Your task to perform on an android device: change the clock style Image 0: 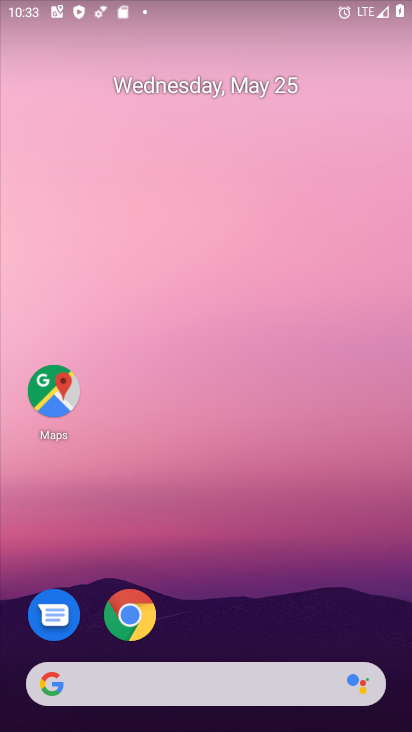
Step 0: drag from (277, 564) to (295, 24)
Your task to perform on an android device: change the clock style Image 1: 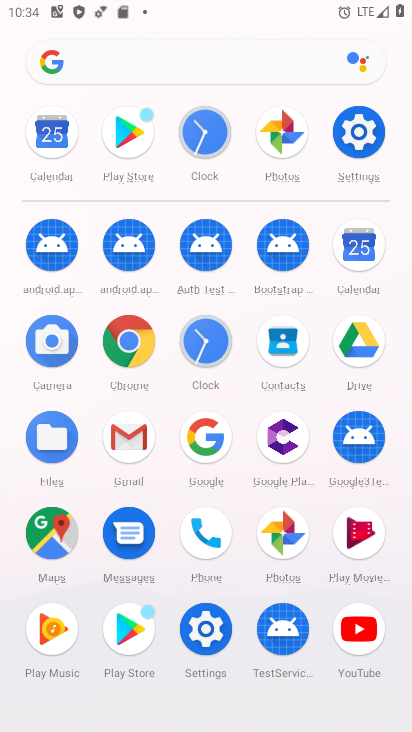
Step 1: click (210, 340)
Your task to perform on an android device: change the clock style Image 2: 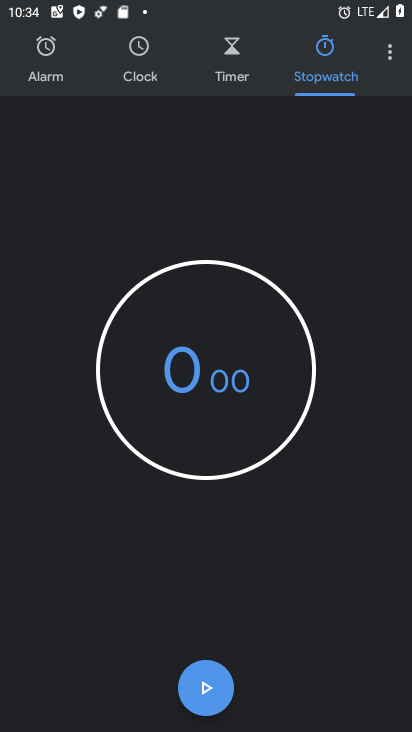
Step 2: click (136, 58)
Your task to perform on an android device: change the clock style Image 3: 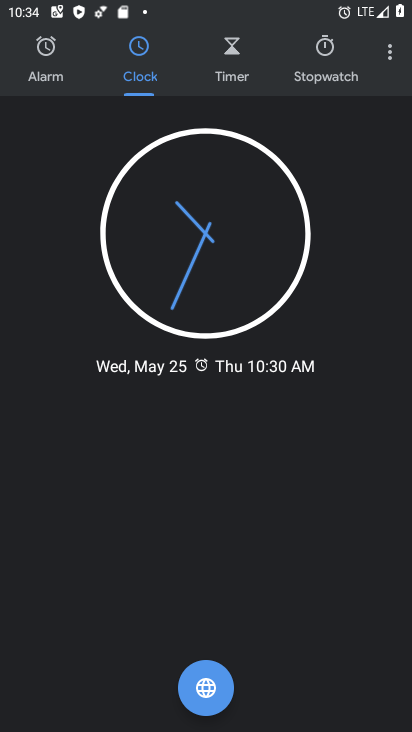
Step 3: click (391, 52)
Your task to perform on an android device: change the clock style Image 4: 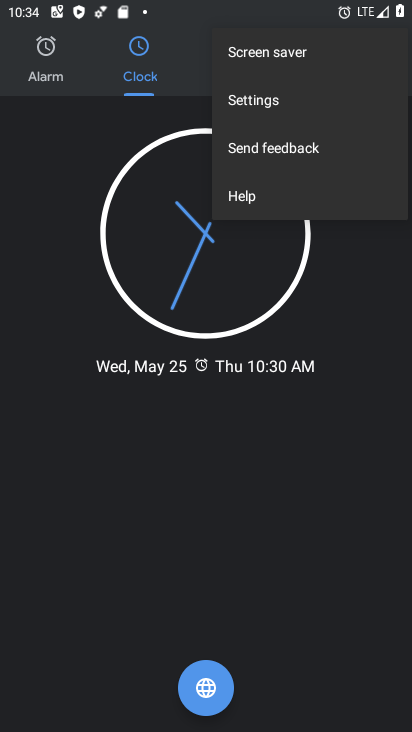
Step 4: click (324, 96)
Your task to perform on an android device: change the clock style Image 5: 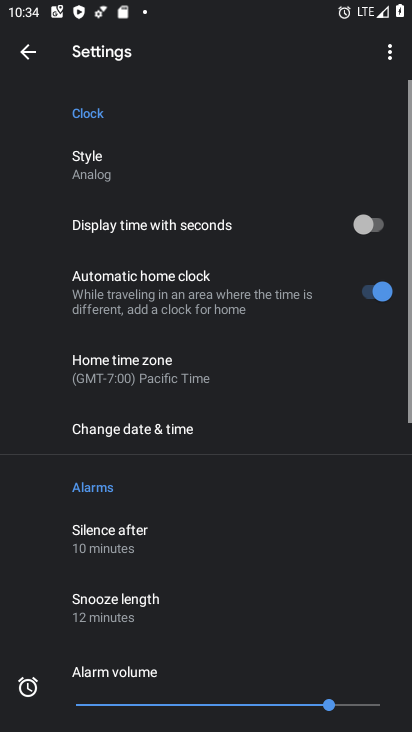
Step 5: click (124, 162)
Your task to perform on an android device: change the clock style Image 6: 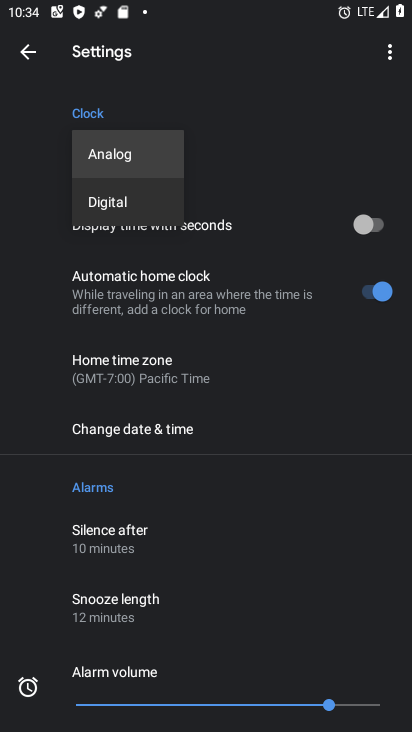
Step 6: click (138, 200)
Your task to perform on an android device: change the clock style Image 7: 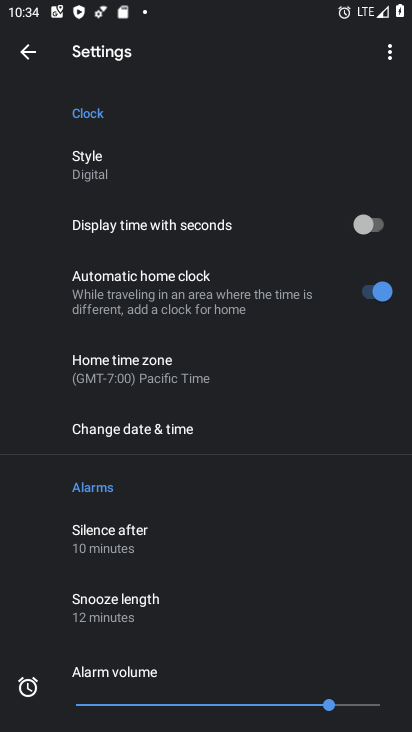
Step 7: click (25, 56)
Your task to perform on an android device: change the clock style Image 8: 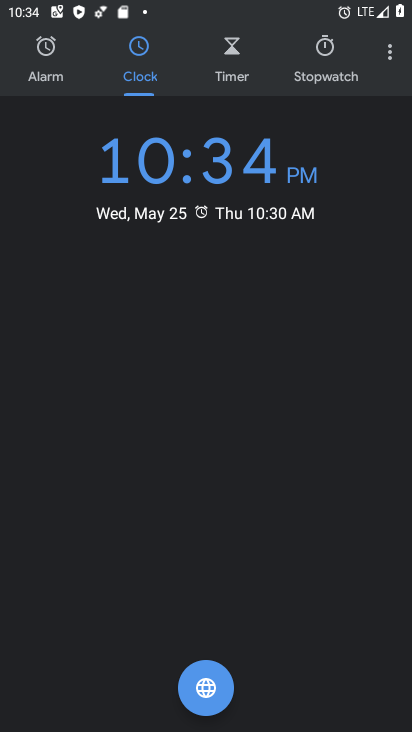
Step 8: task complete